Your task to perform on an android device: Is it going to rain this weekend? Image 0: 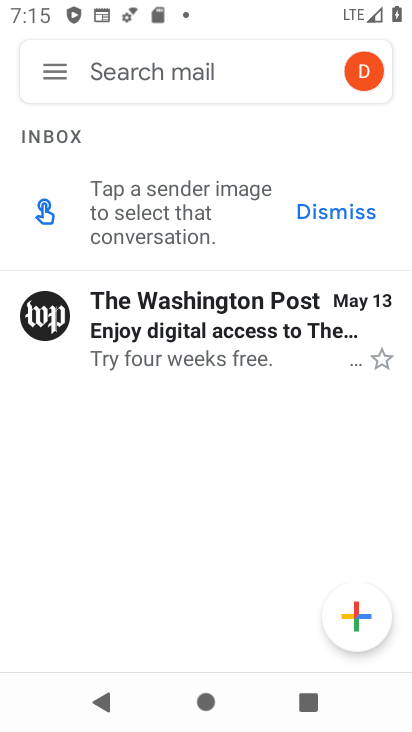
Step 0: press home button
Your task to perform on an android device: Is it going to rain this weekend? Image 1: 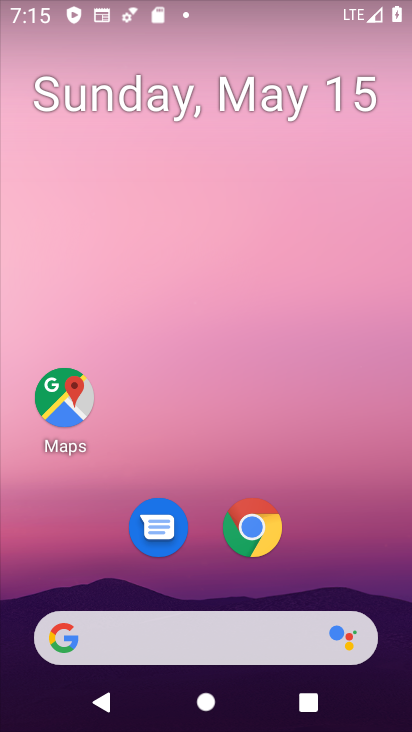
Step 1: drag from (327, 441) to (243, 11)
Your task to perform on an android device: Is it going to rain this weekend? Image 2: 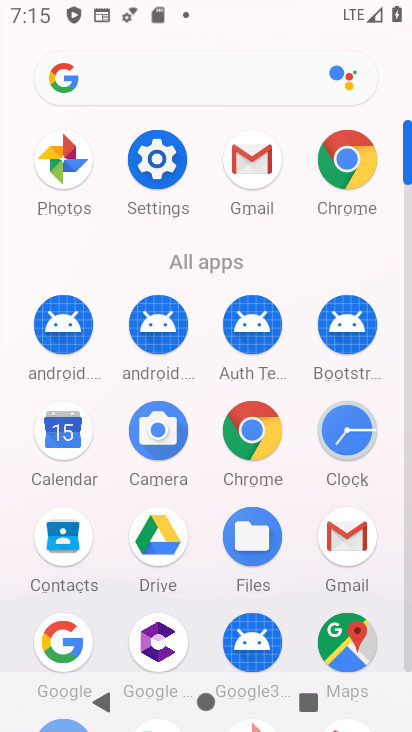
Step 2: press home button
Your task to perform on an android device: Is it going to rain this weekend? Image 3: 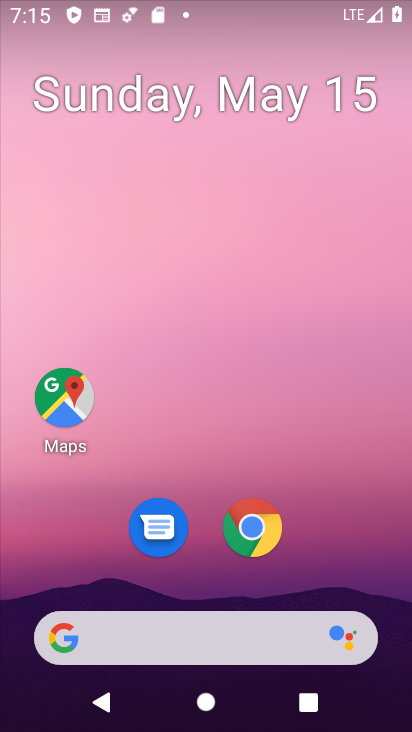
Step 3: click (50, 641)
Your task to perform on an android device: Is it going to rain this weekend? Image 4: 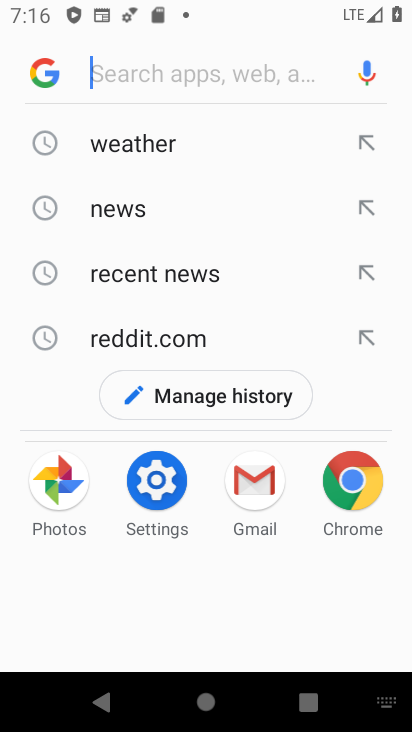
Step 4: click (48, 88)
Your task to perform on an android device: Is it going to rain this weekend? Image 5: 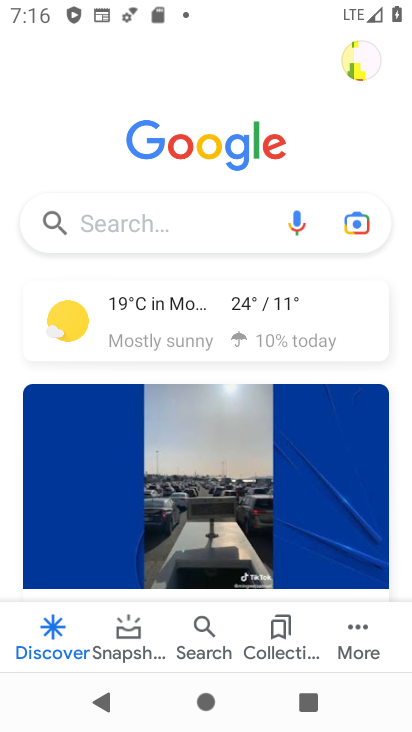
Step 5: click (128, 338)
Your task to perform on an android device: Is it going to rain this weekend? Image 6: 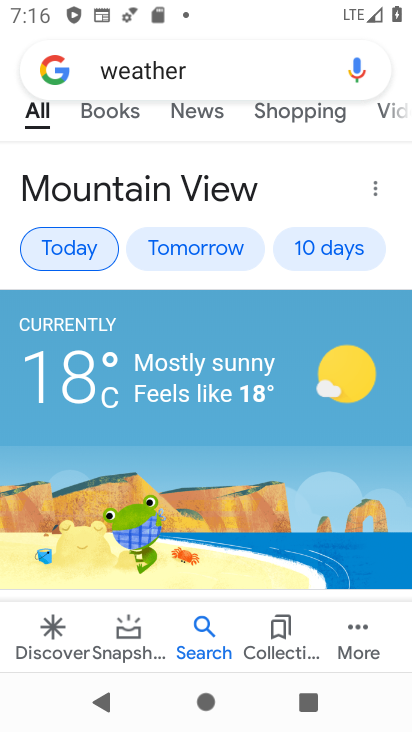
Step 6: click (131, 392)
Your task to perform on an android device: Is it going to rain this weekend? Image 7: 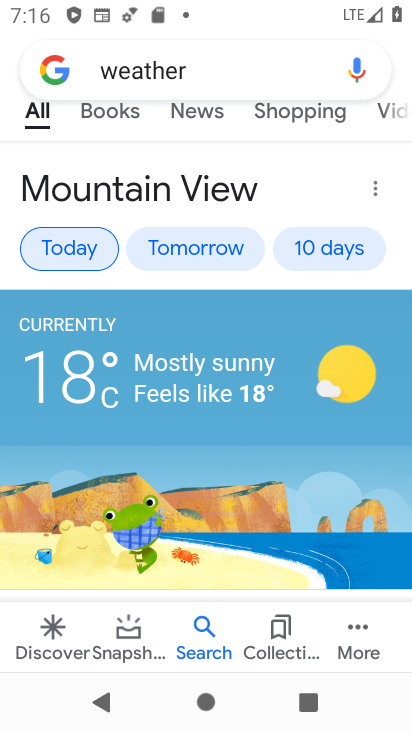
Step 7: task complete